Your task to perform on an android device: Go to accessibility settings Image 0: 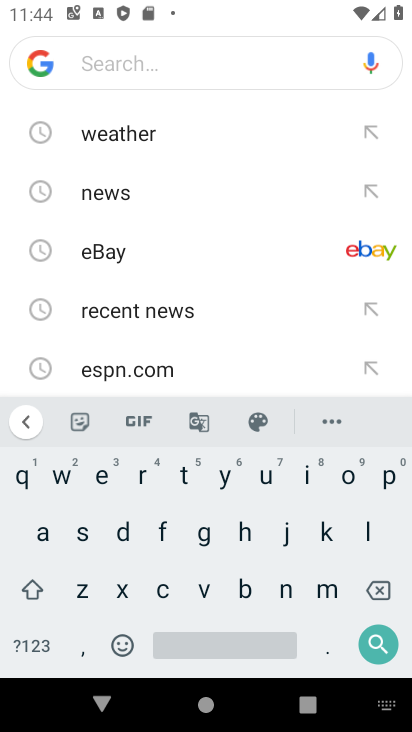
Step 0: press home button
Your task to perform on an android device: Go to accessibility settings Image 1: 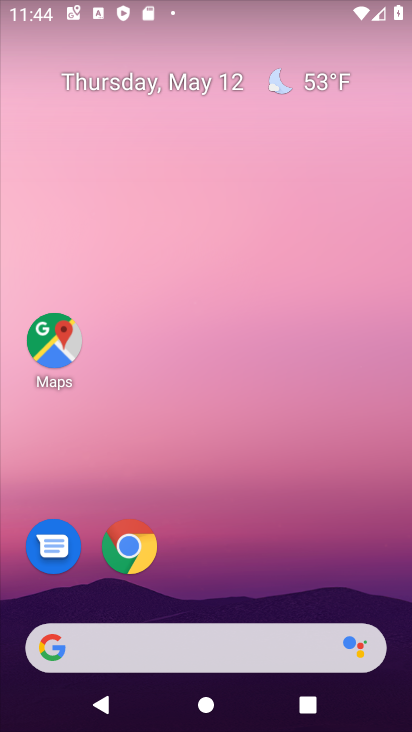
Step 1: drag from (255, 671) to (147, 277)
Your task to perform on an android device: Go to accessibility settings Image 2: 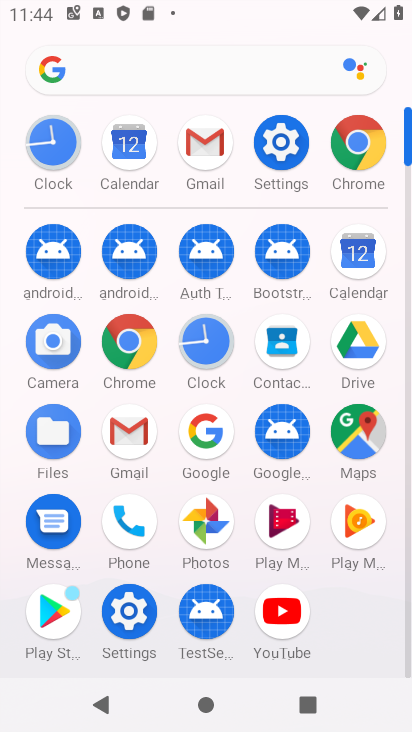
Step 2: click (281, 166)
Your task to perform on an android device: Go to accessibility settings Image 3: 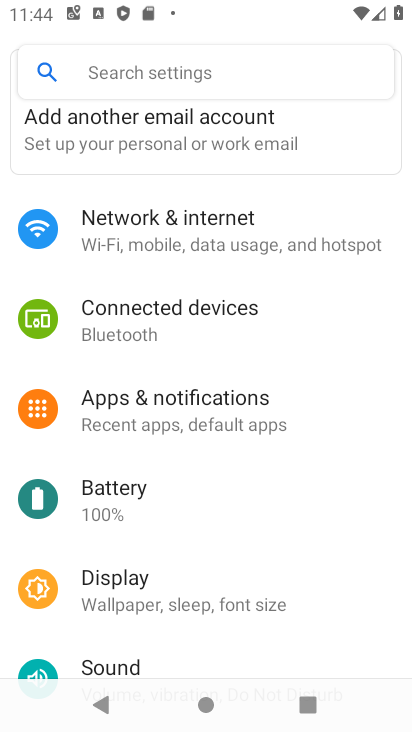
Step 3: click (173, 75)
Your task to perform on an android device: Go to accessibility settings Image 4: 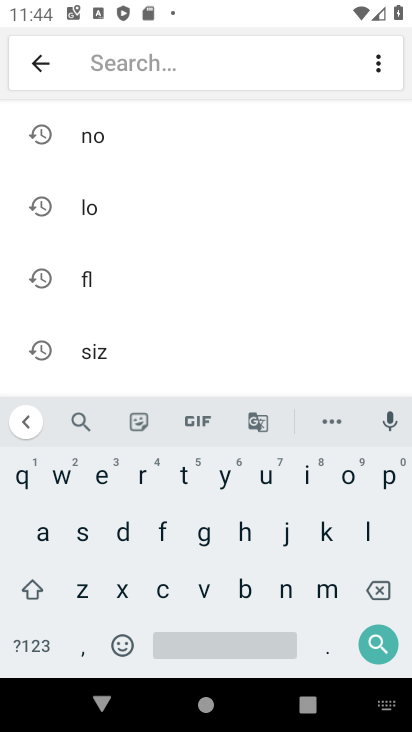
Step 4: click (38, 538)
Your task to perform on an android device: Go to accessibility settings Image 5: 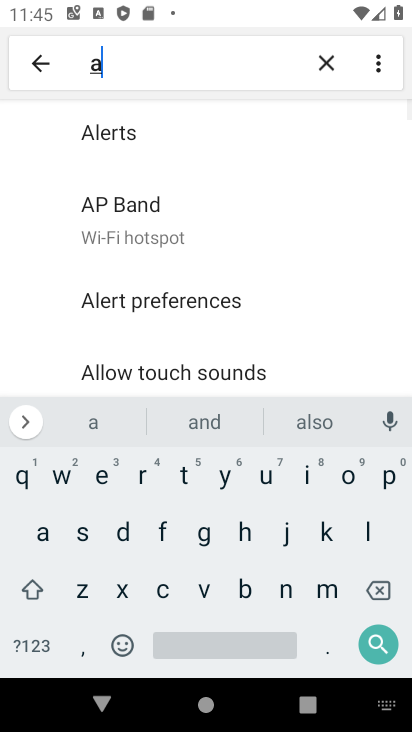
Step 5: click (160, 595)
Your task to perform on an android device: Go to accessibility settings Image 6: 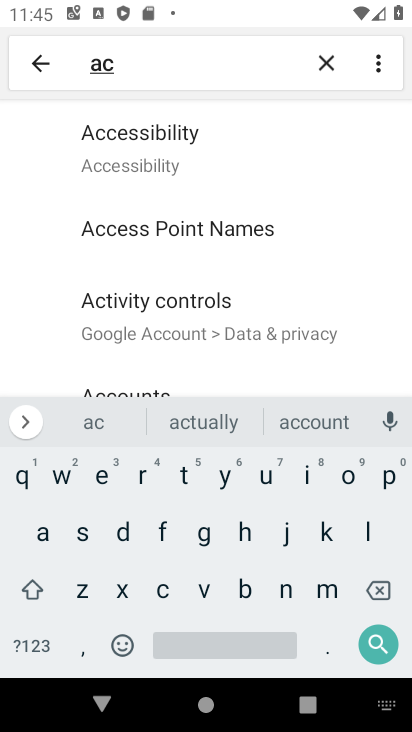
Step 6: click (166, 184)
Your task to perform on an android device: Go to accessibility settings Image 7: 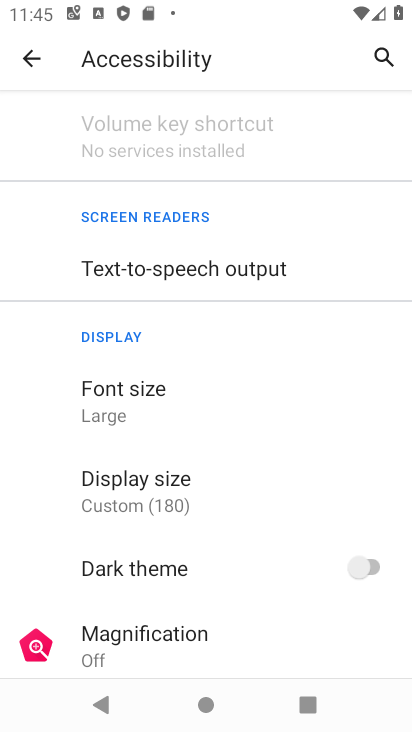
Step 7: task complete